Your task to perform on an android device: open app "Google Maps" Image 0: 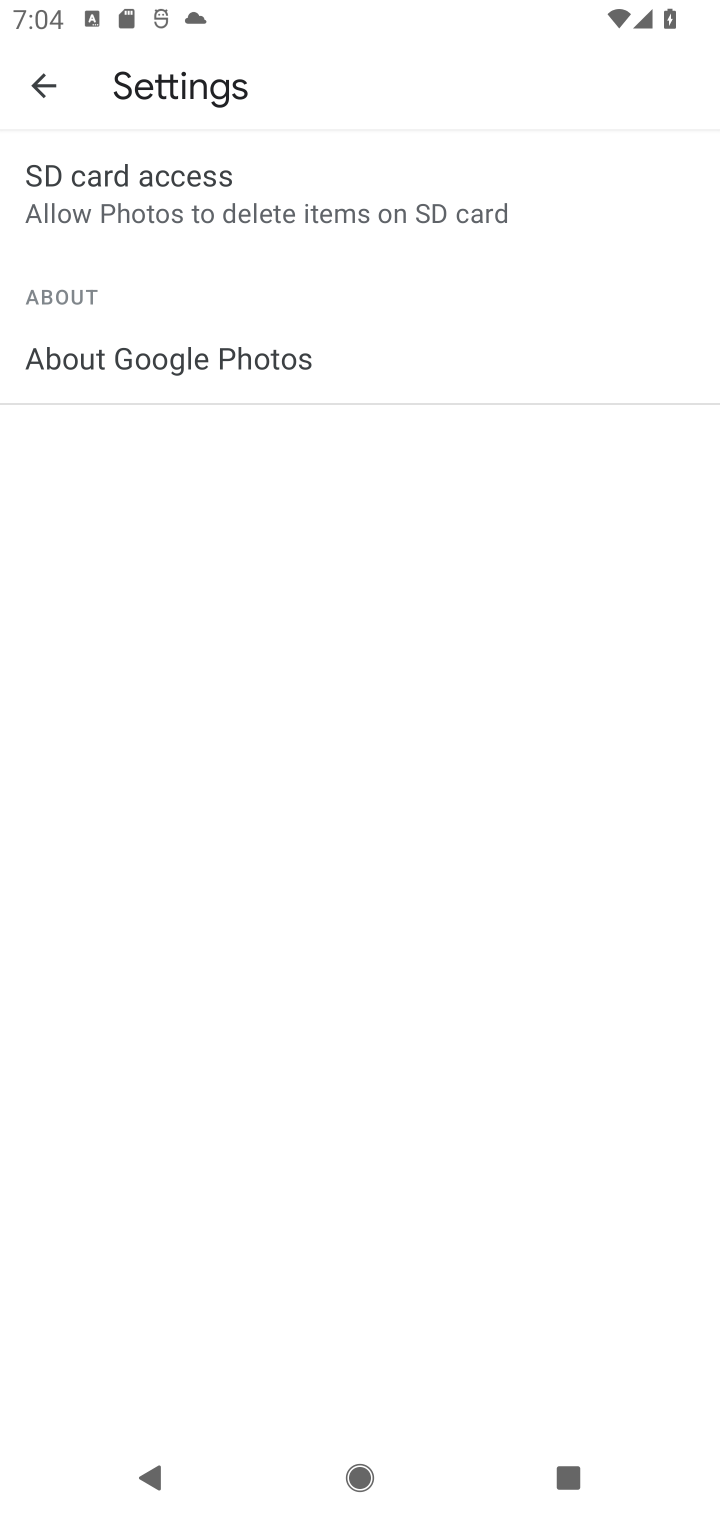
Step 0: press home button
Your task to perform on an android device: open app "Google Maps" Image 1: 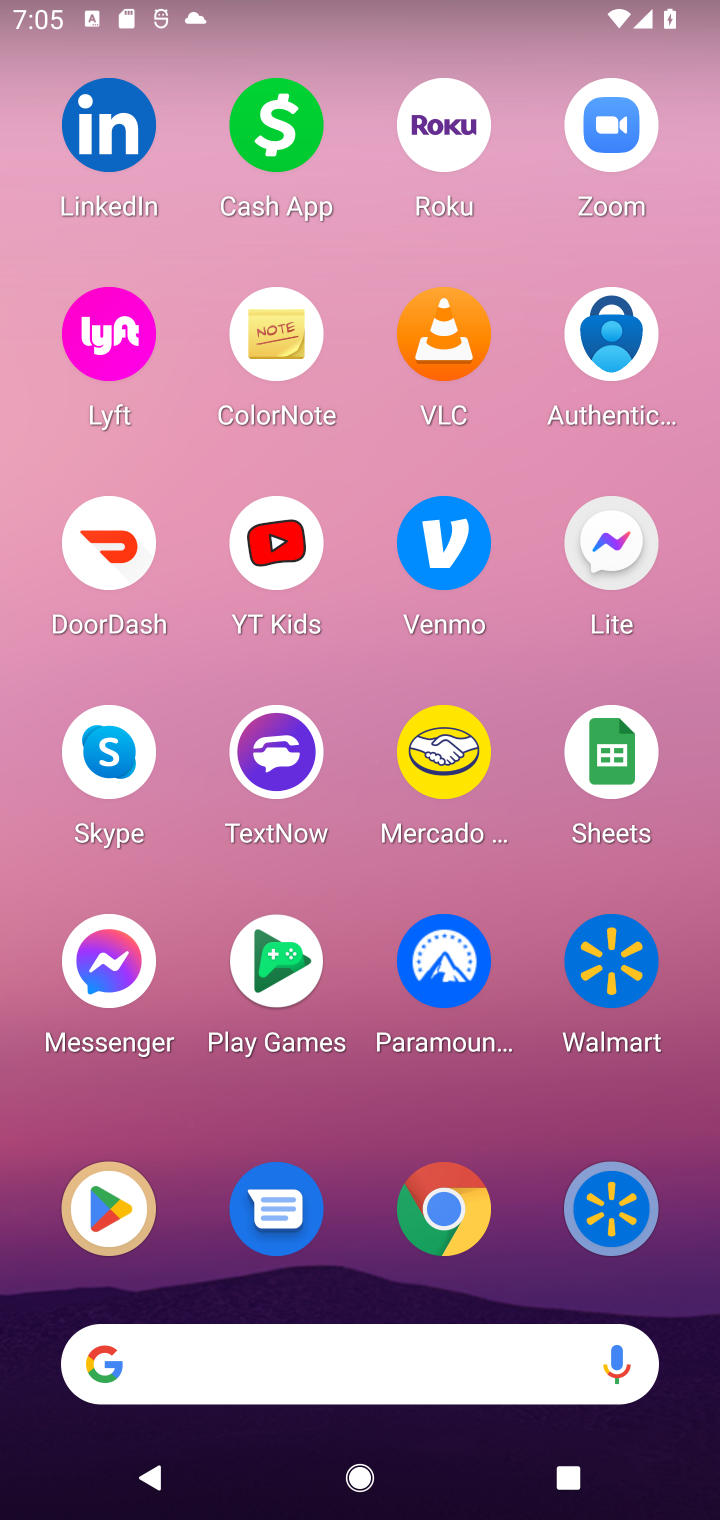
Step 1: click (117, 1225)
Your task to perform on an android device: open app "Google Maps" Image 2: 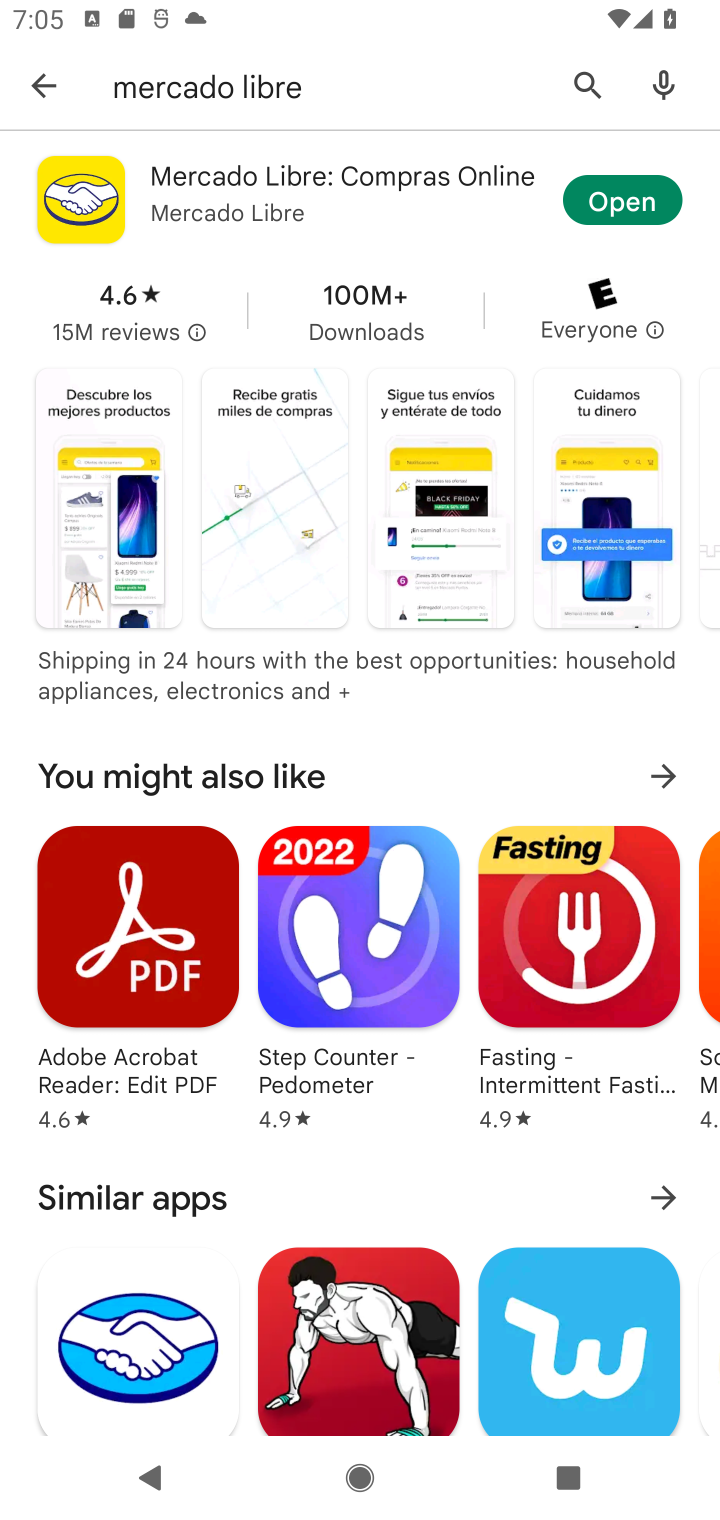
Step 2: click (585, 85)
Your task to perform on an android device: open app "Google Maps" Image 3: 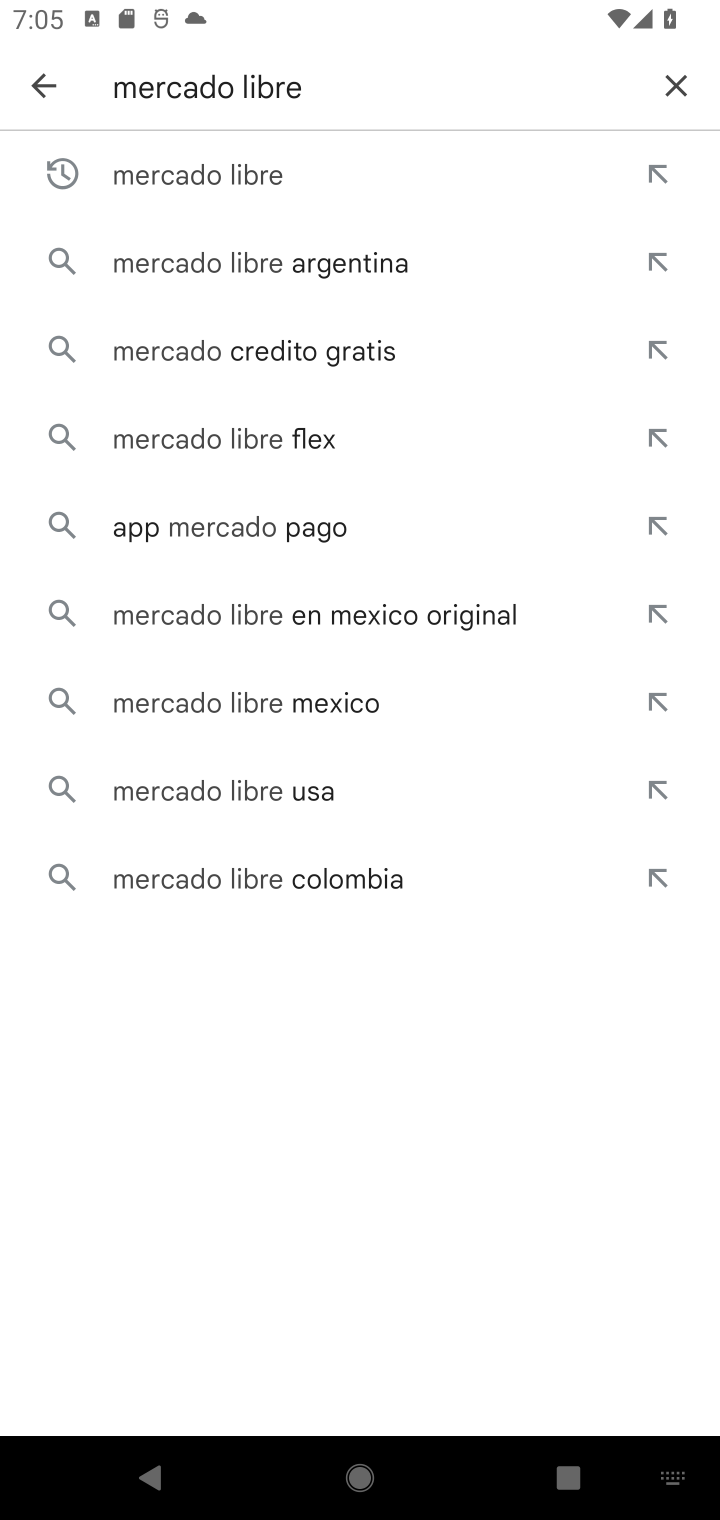
Step 3: click (674, 79)
Your task to perform on an android device: open app "Google Maps" Image 4: 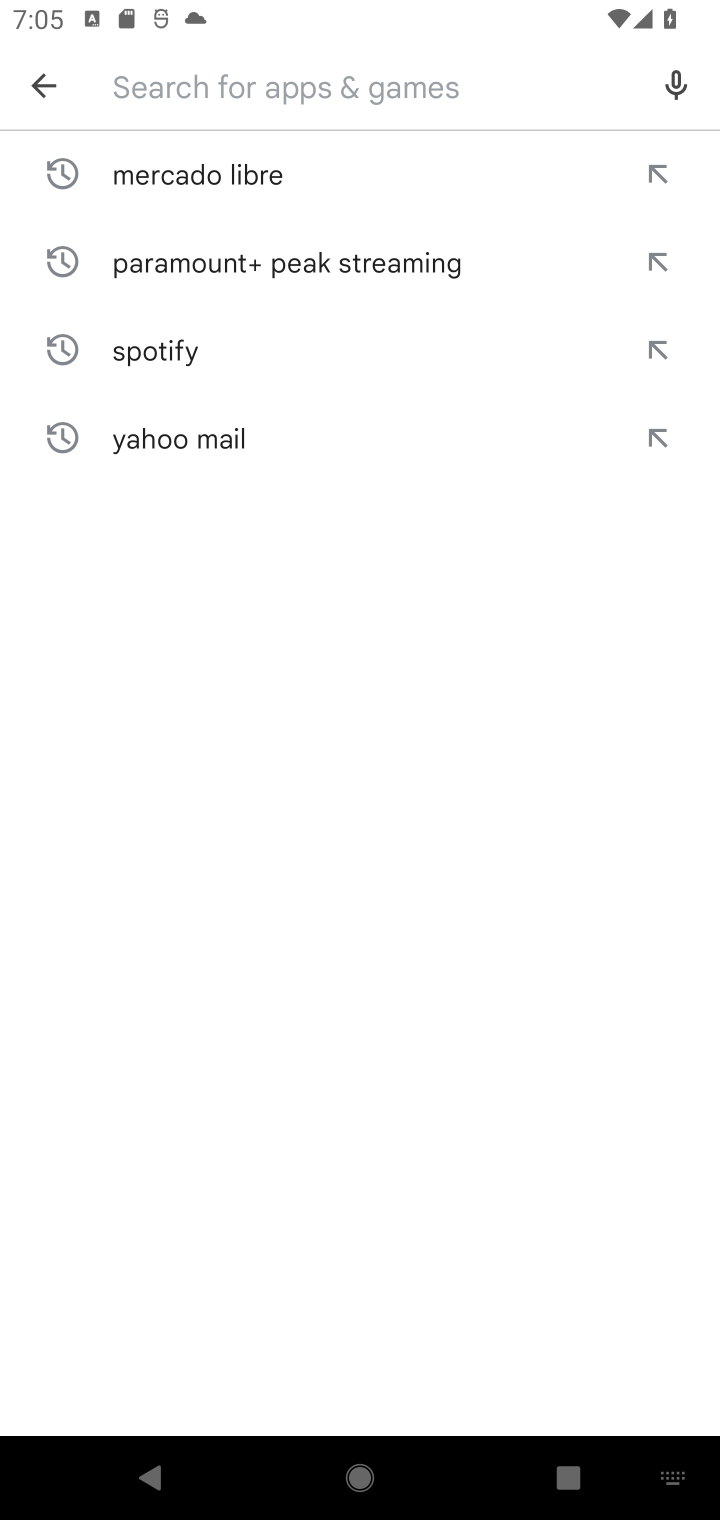
Step 4: click (365, 79)
Your task to perform on an android device: open app "Google Maps" Image 5: 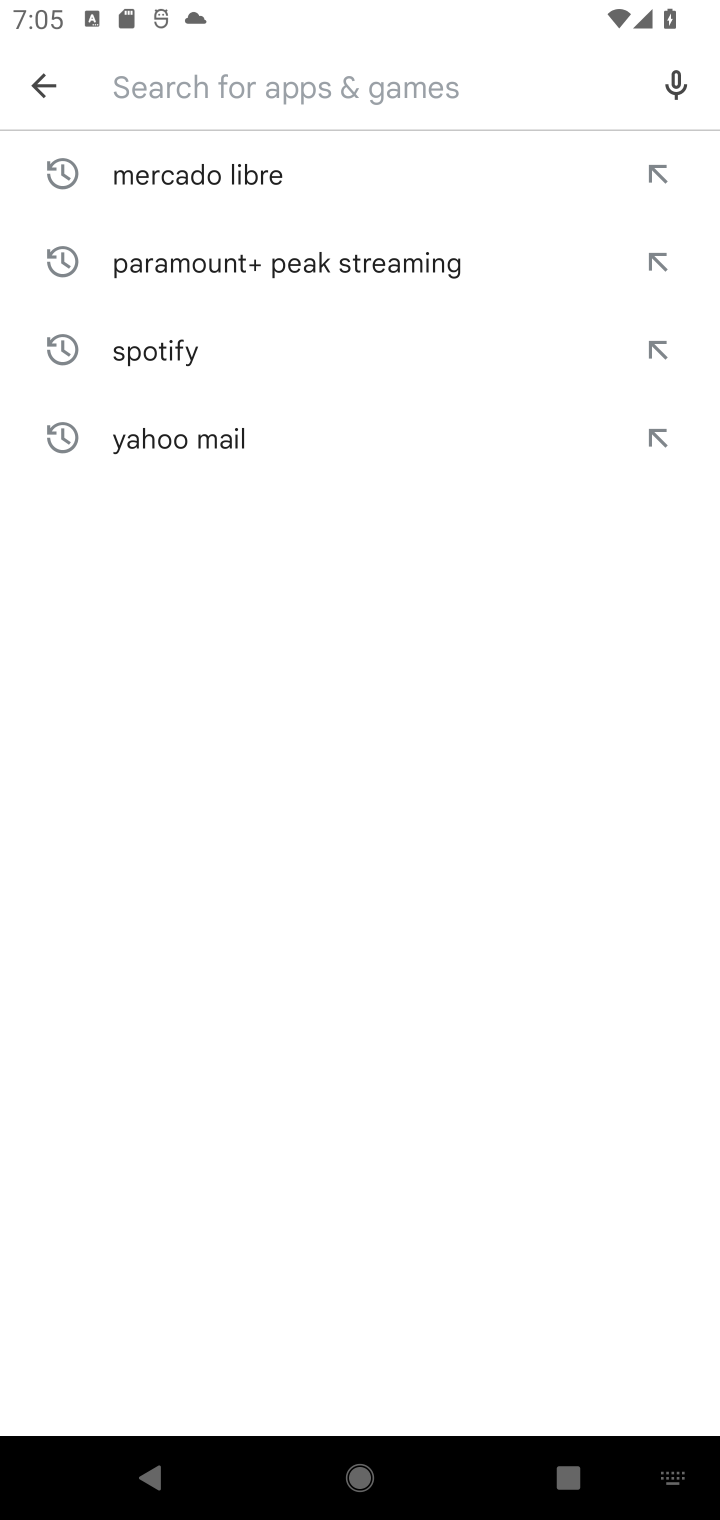
Step 5: type "Google Maps"
Your task to perform on an android device: open app "Google Maps" Image 6: 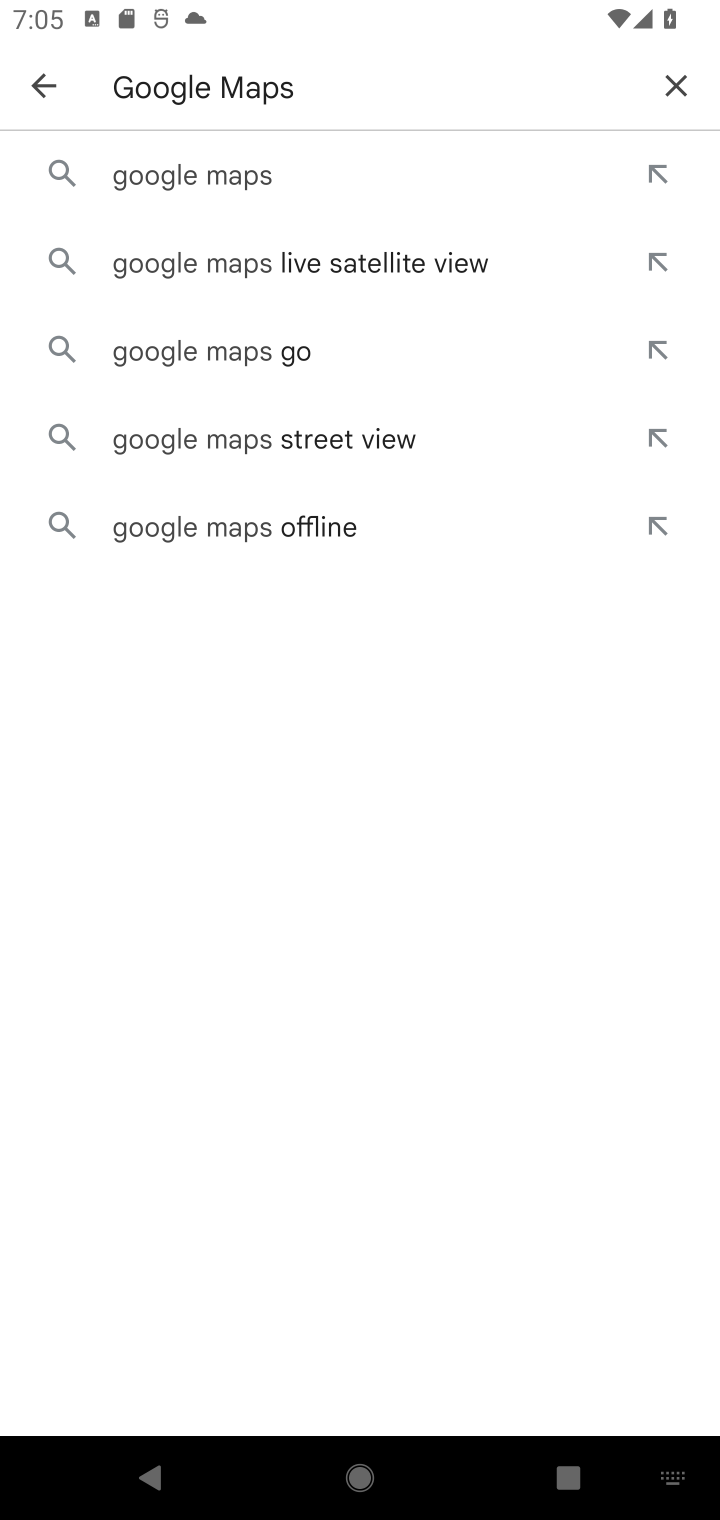
Step 6: click (197, 182)
Your task to perform on an android device: open app "Google Maps" Image 7: 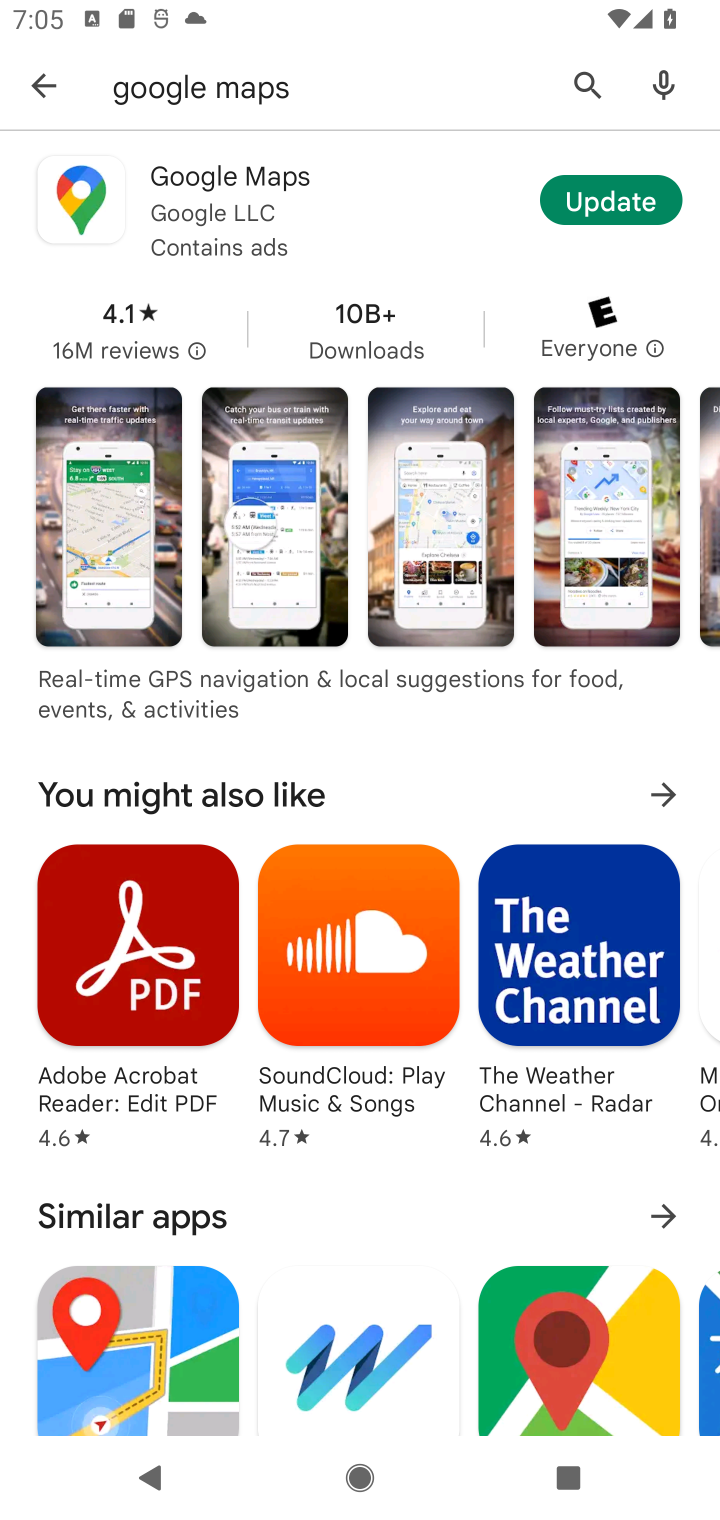
Step 7: click (111, 188)
Your task to perform on an android device: open app "Google Maps" Image 8: 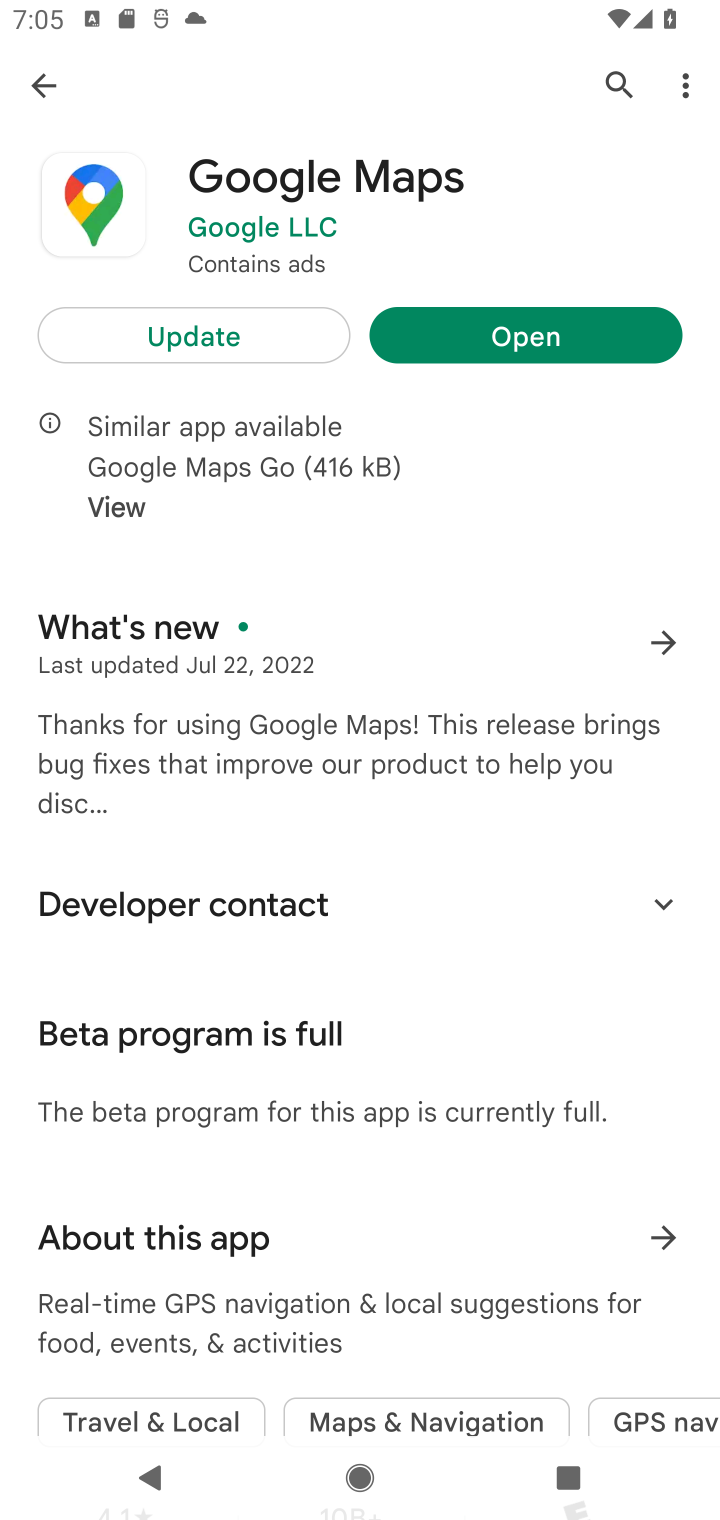
Step 8: click (518, 323)
Your task to perform on an android device: open app "Google Maps" Image 9: 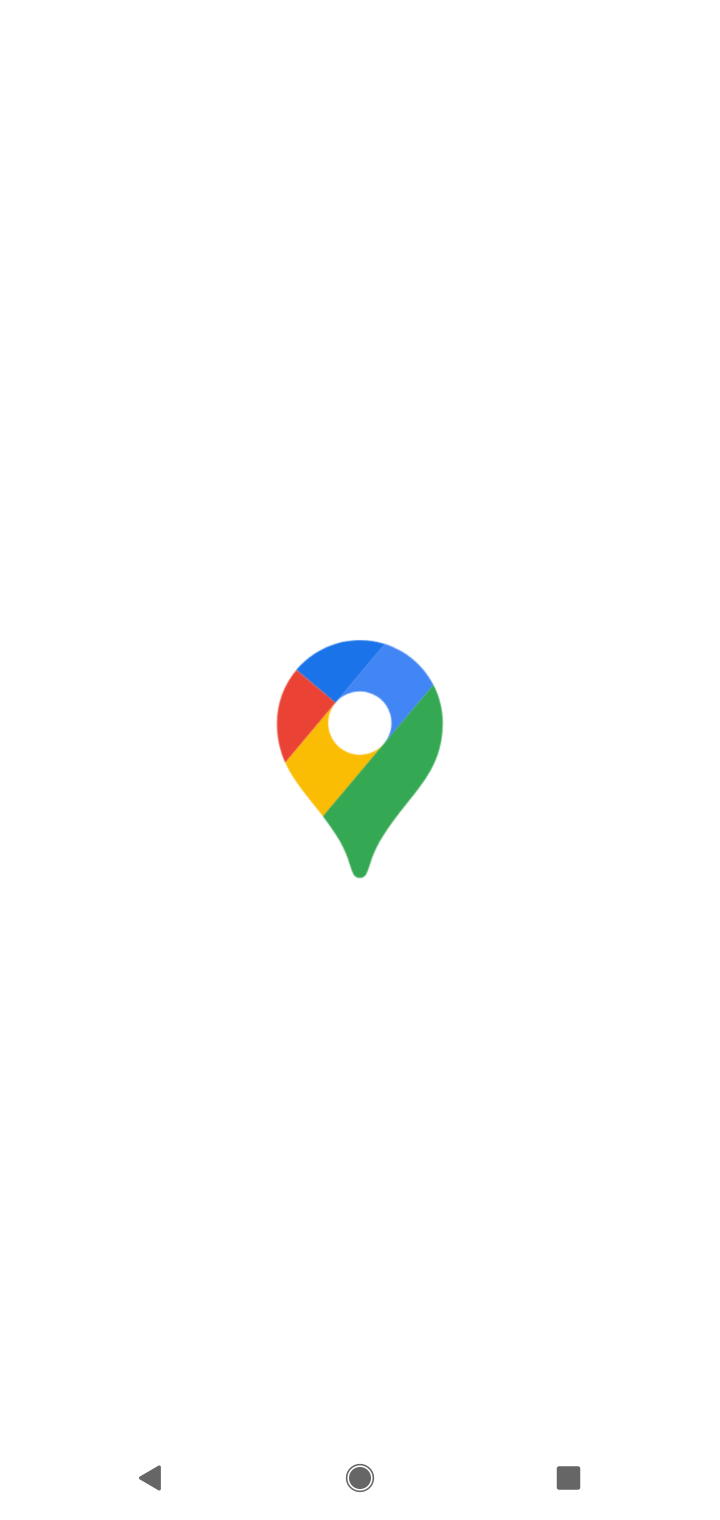
Step 9: task complete